Your task to perform on an android device: toggle sleep mode Image 0: 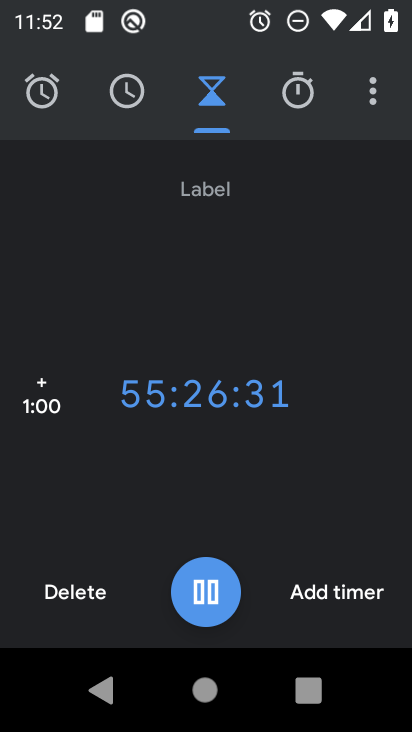
Step 0: press home button
Your task to perform on an android device: toggle sleep mode Image 1: 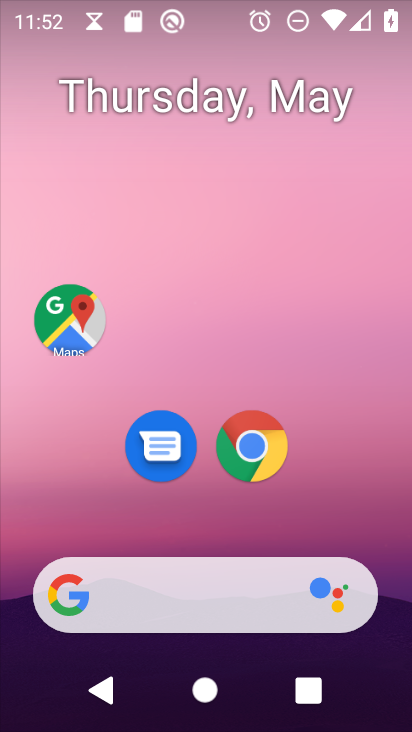
Step 1: drag from (224, 661) to (230, 331)
Your task to perform on an android device: toggle sleep mode Image 2: 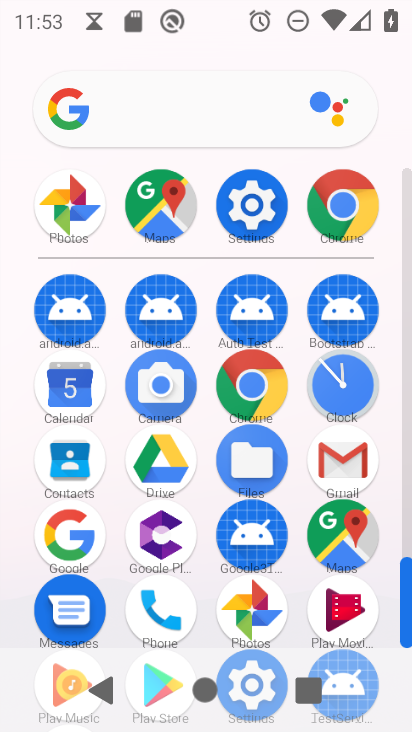
Step 2: click (258, 206)
Your task to perform on an android device: toggle sleep mode Image 3: 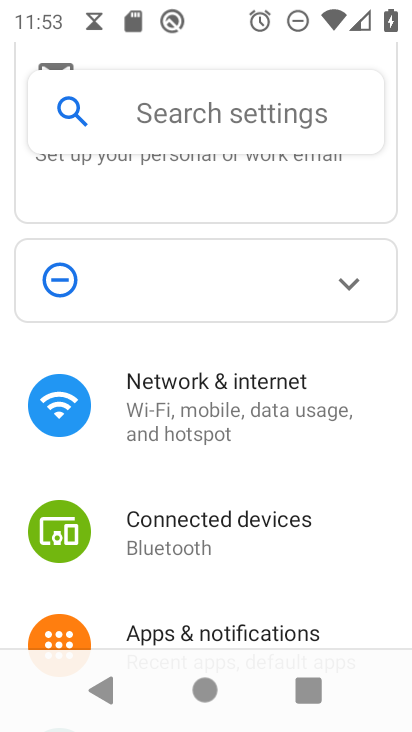
Step 3: click (220, 119)
Your task to perform on an android device: toggle sleep mode Image 4: 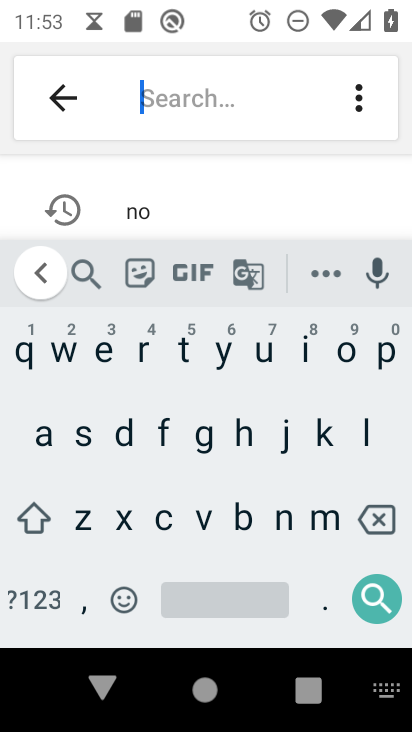
Step 4: click (80, 432)
Your task to perform on an android device: toggle sleep mode Image 5: 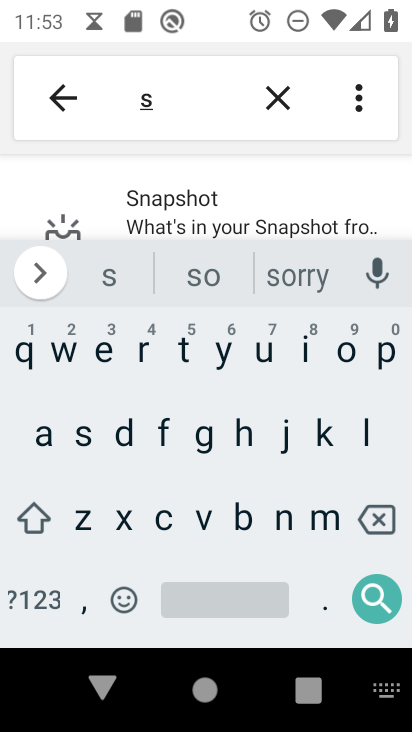
Step 5: click (363, 436)
Your task to perform on an android device: toggle sleep mode Image 6: 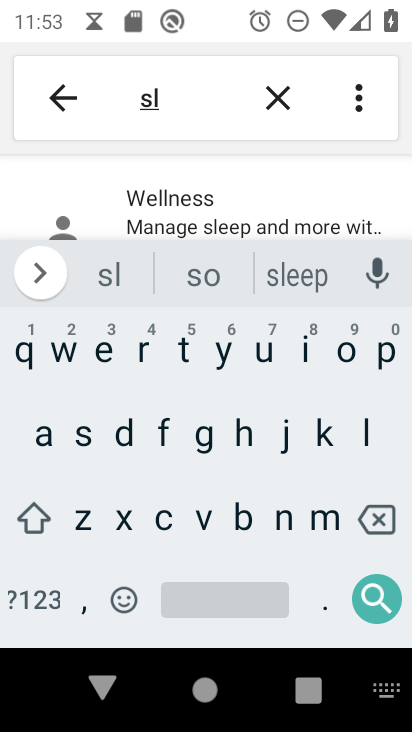
Step 6: click (102, 357)
Your task to perform on an android device: toggle sleep mode Image 7: 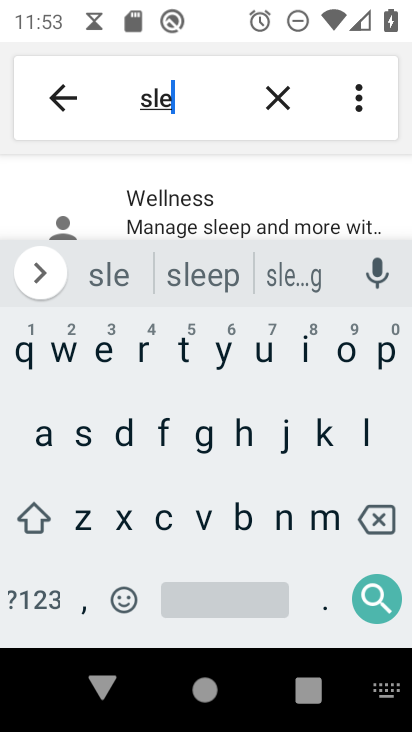
Step 7: click (102, 357)
Your task to perform on an android device: toggle sleep mode Image 8: 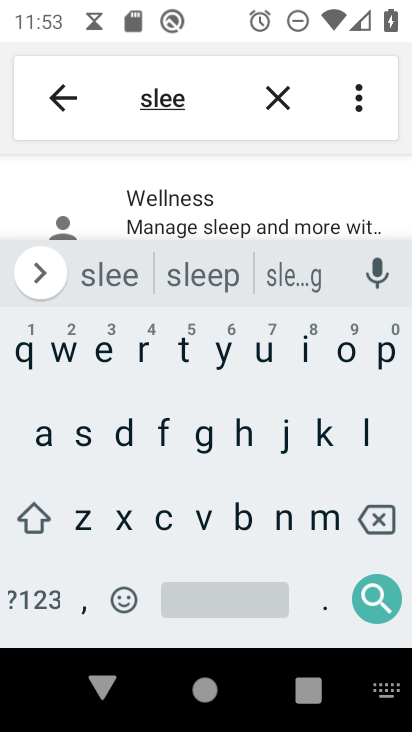
Step 8: click (214, 218)
Your task to perform on an android device: toggle sleep mode Image 9: 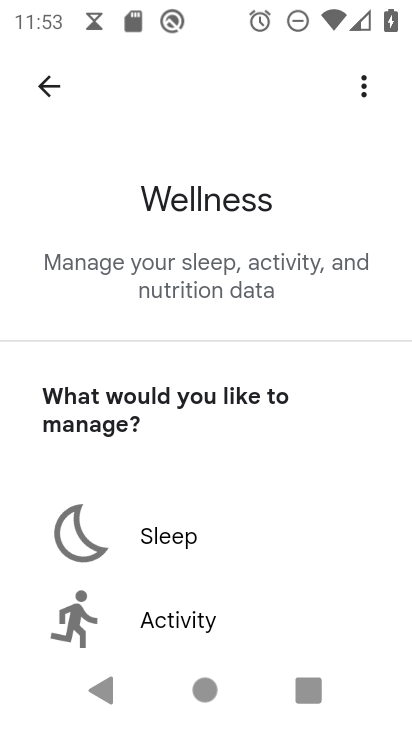
Step 9: click (168, 547)
Your task to perform on an android device: toggle sleep mode Image 10: 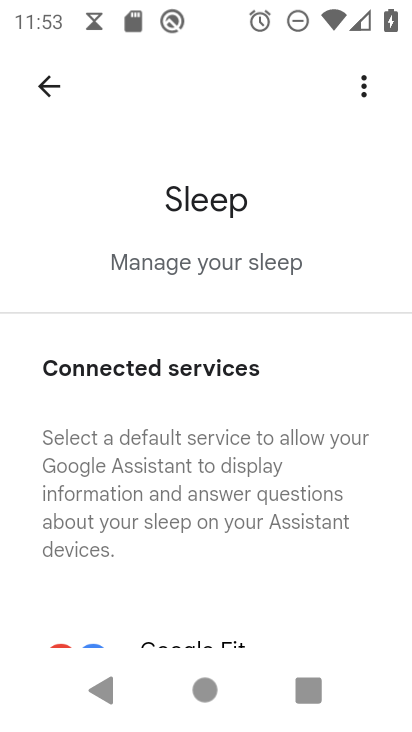
Step 10: task complete